Your task to perform on an android device: Go to CNN.com Image 0: 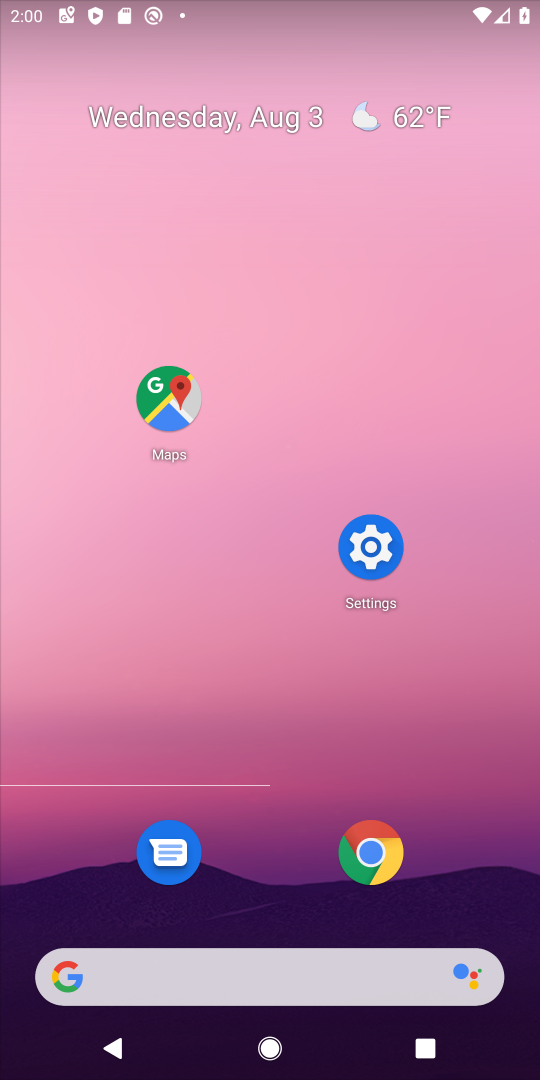
Step 0: press home button
Your task to perform on an android device: Go to CNN.com Image 1: 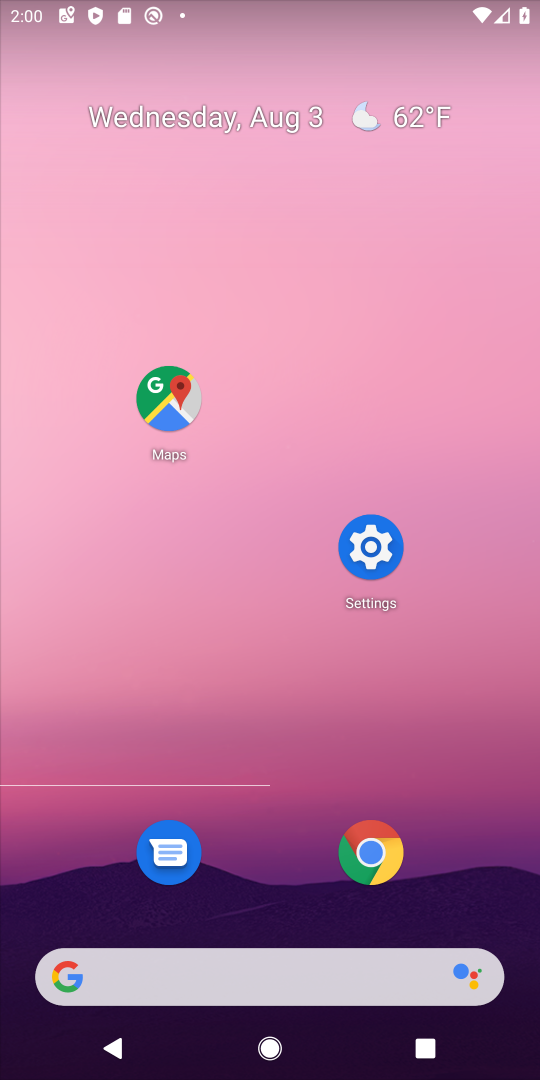
Step 1: click (377, 843)
Your task to perform on an android device: Go to CNN.com Image 2: 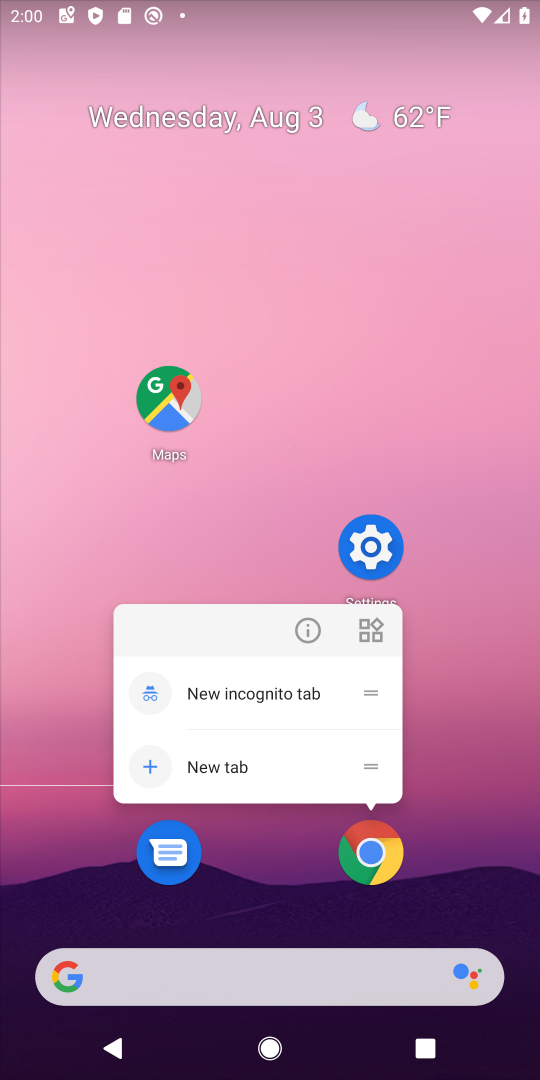
Step 2: click (377, 843)
Your task to perform on an android device: Go to CNN.com Image 3: 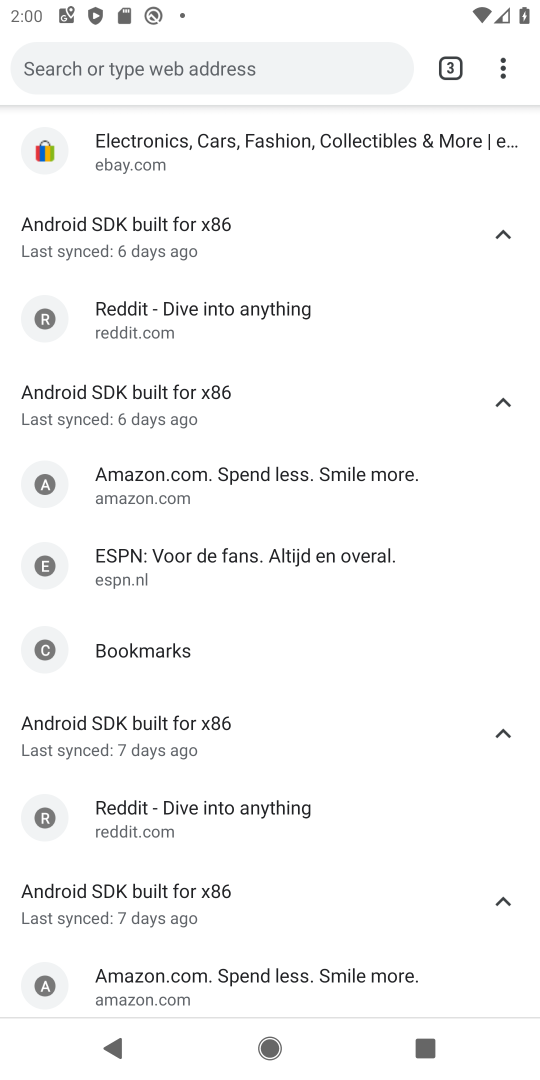
Step 3: drag from (499, 76) to (299, 211)
Your task to perform on an android device: Go to CNN.com Image 4: 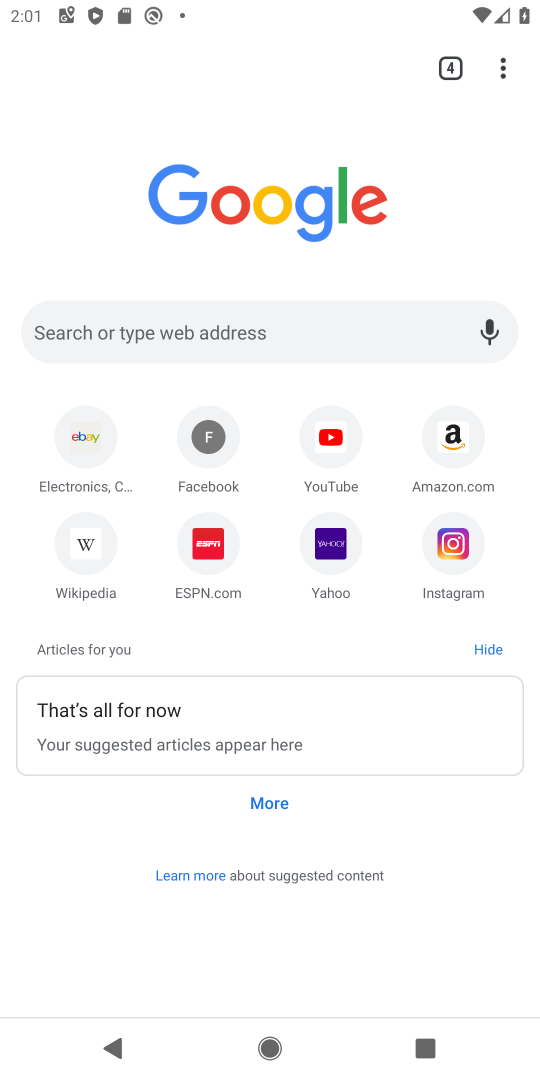
Step 4: click (136, 325)
Your task to perform on an android device: Go to CNN.com Image 5: 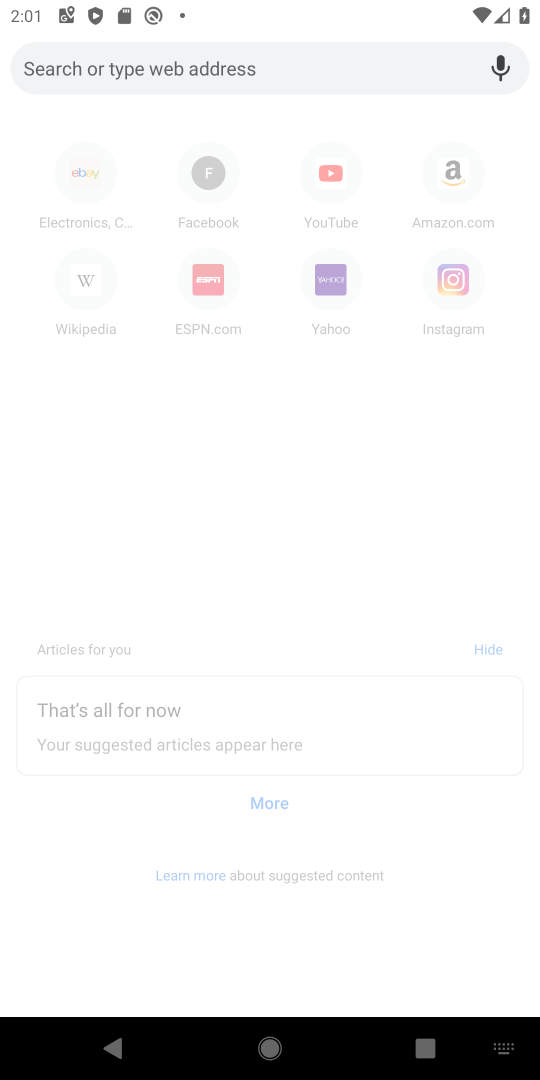
Step 5: type "CNN.com"
Your task to perform on an android device: Go to CNN.com Image 6: 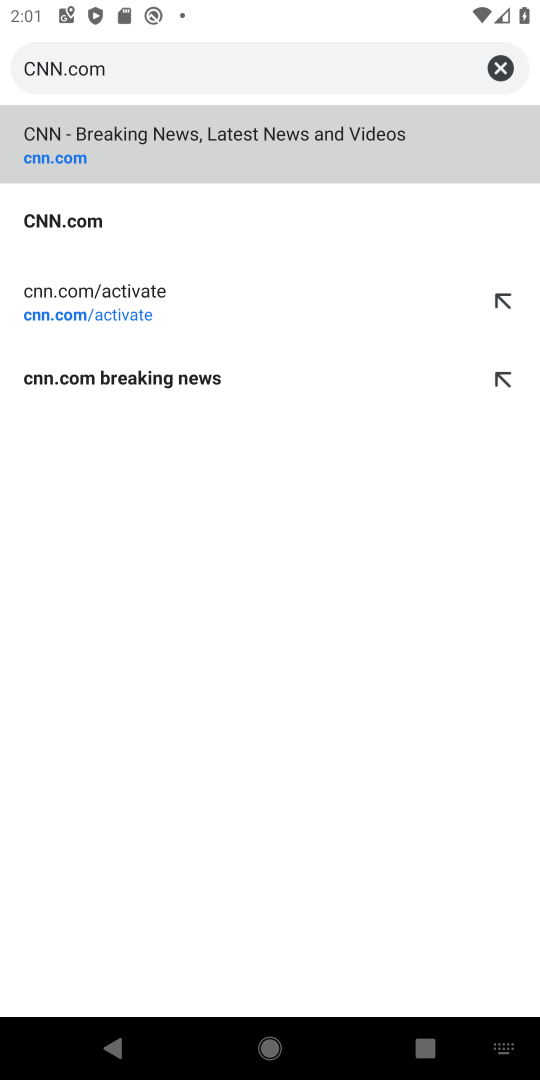
Step 6: click (157, 145)
Your task to perform on an android device: Go to CNN.com Image 7: 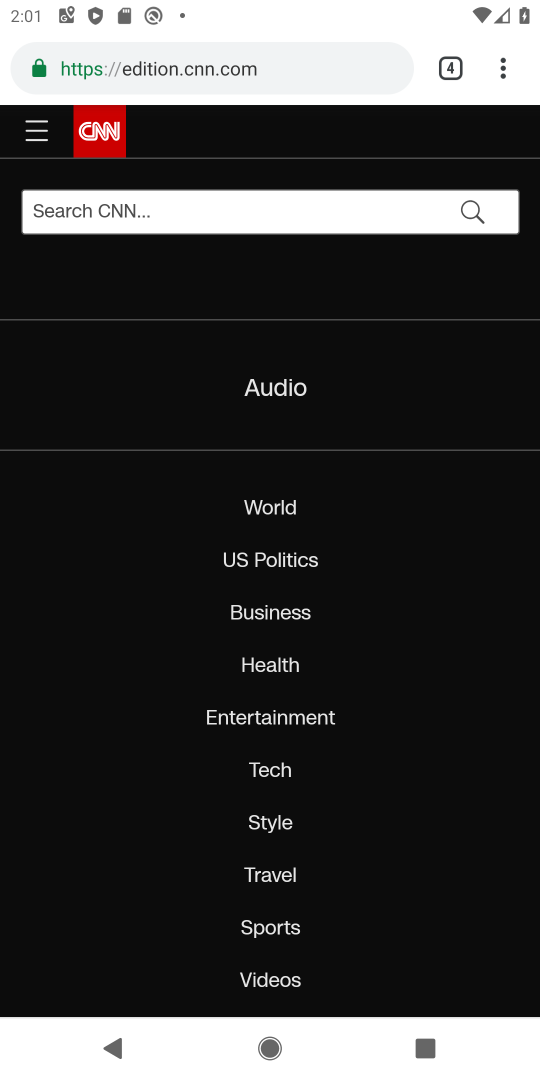
Step 7: task complete